Your task to perform on an android device: open app "Yahoo Mail" Image 0: 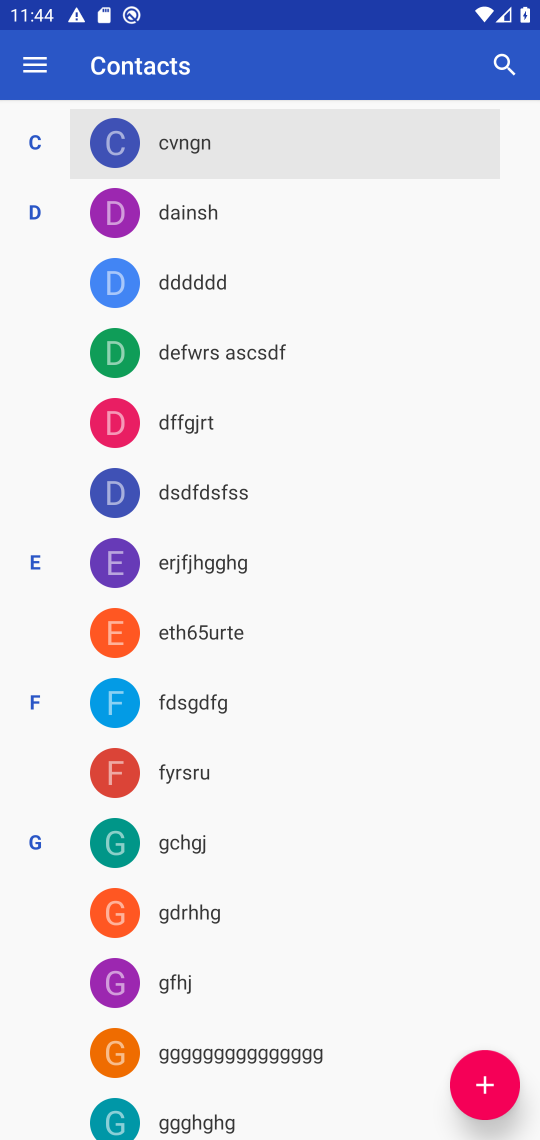
Step 0: press home button
Your task to perform on an android device: open app "Yahoo Mail" Image 1: 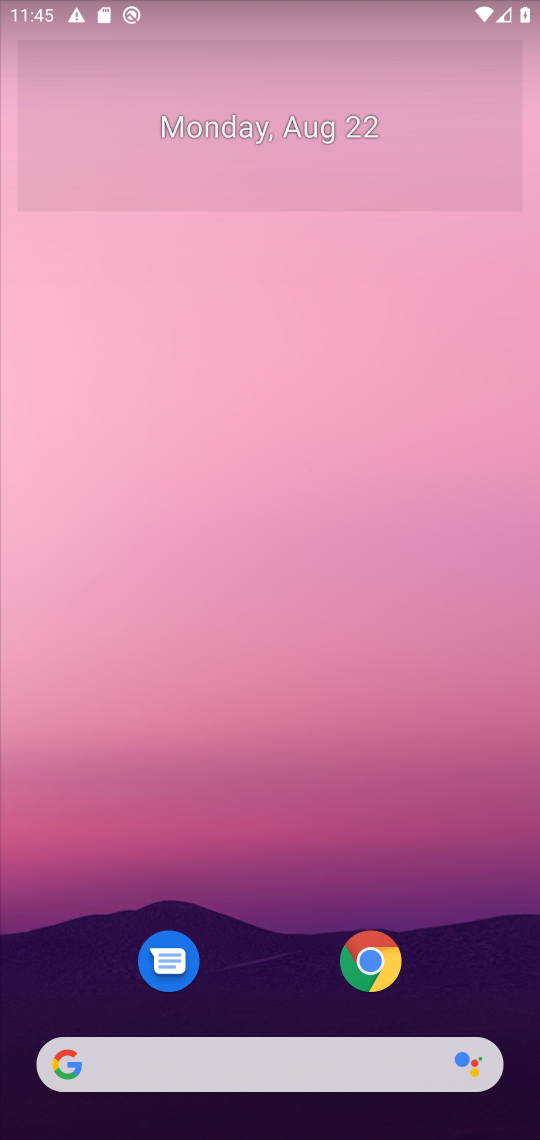
Step 1: drag from (290, 967) to (346, 84)
Your task to perform on an android device: open app "Yahoo Mail" Image 2: 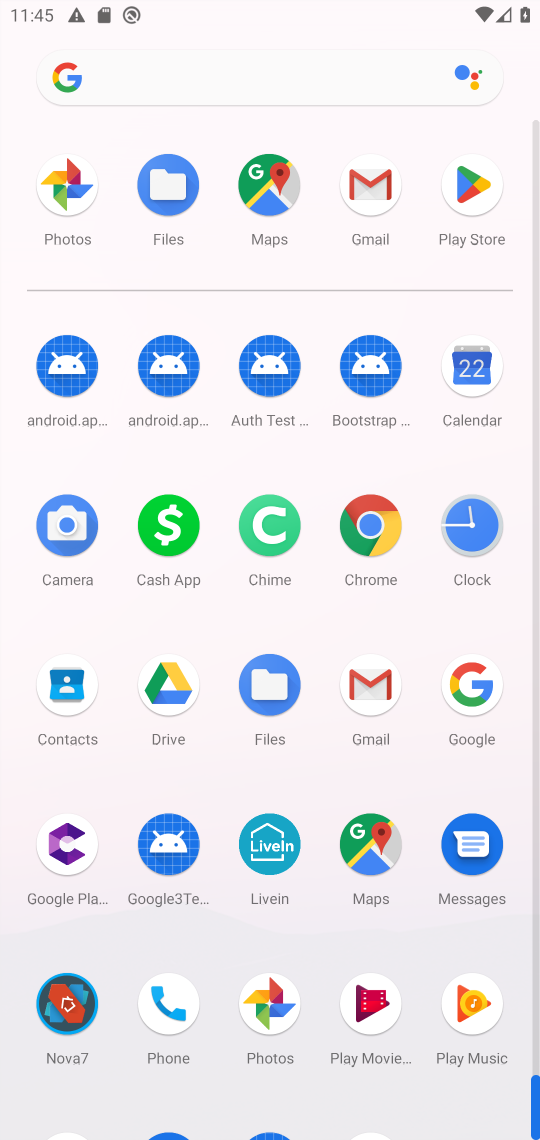
Step 2: click (475, 222)
Your task to perform on an android device: open app "Yahoo Mail" Image 3: 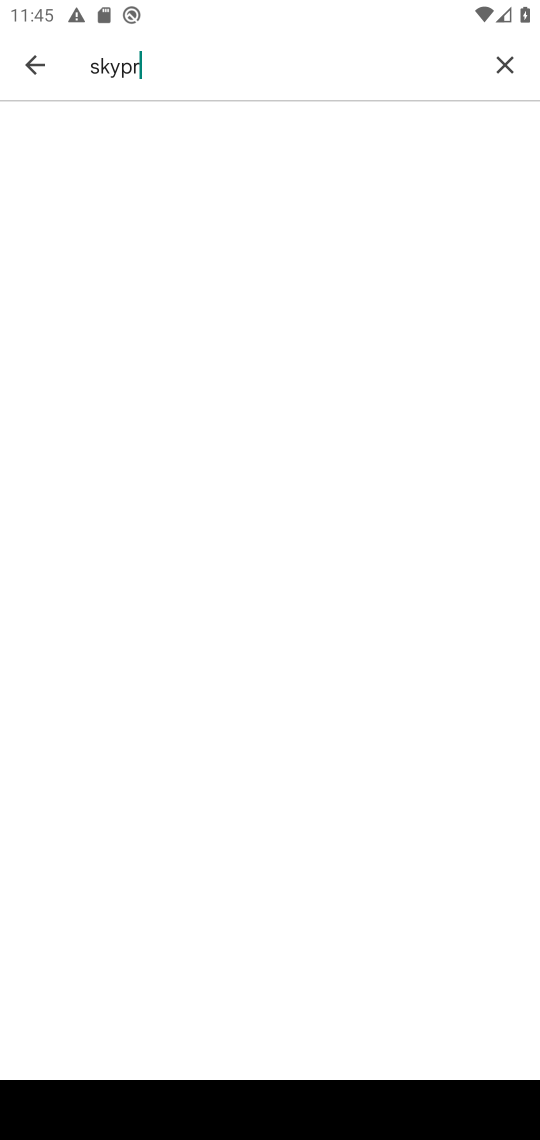
Step 3: click (507, 62)
Your task to perform on an android device: open app "Yahoo Mail" Image 4: 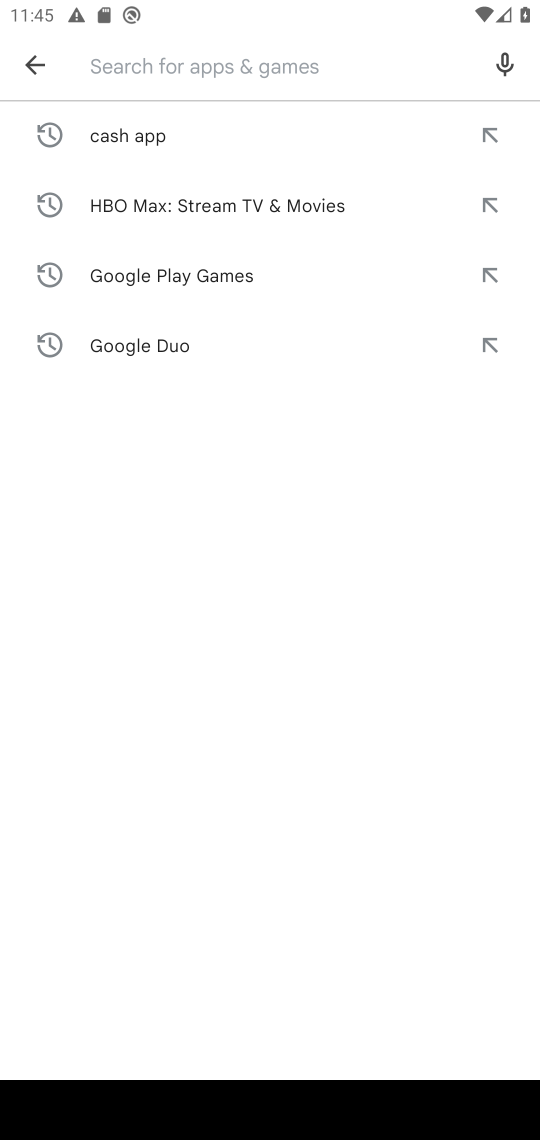
Step 4: type "yahoo mail"
Your task to perform on an android device: open app "Yahoo Mail" Image 5: 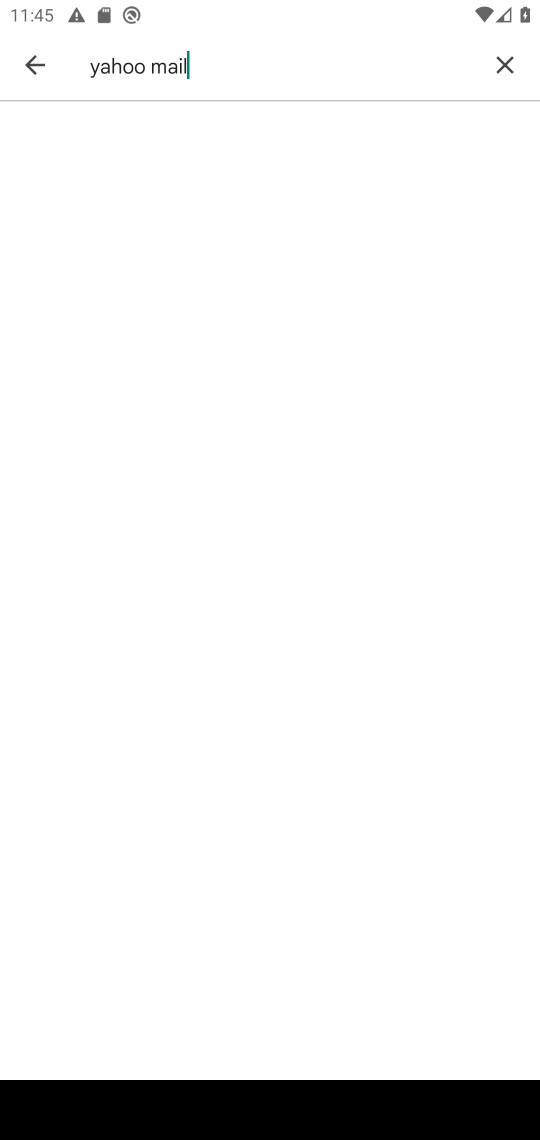
Step 5: task complete